Your task to perform on an android device: turn pop-ups off in chrome Image 0: 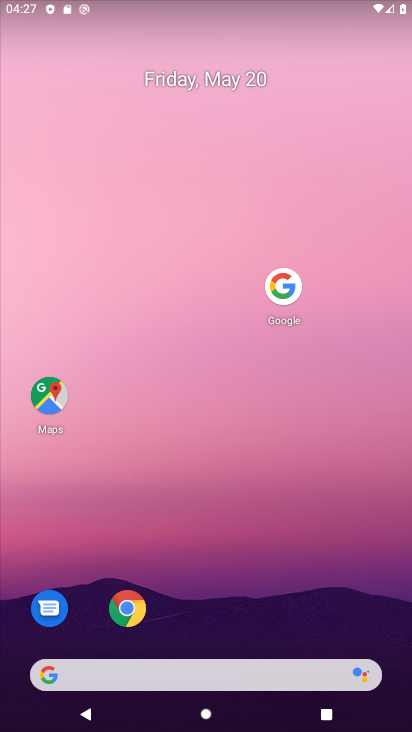
Step 0: click (123, 608)
Your task to perform on an android device: turn pop-ups off in chrome Image 1: 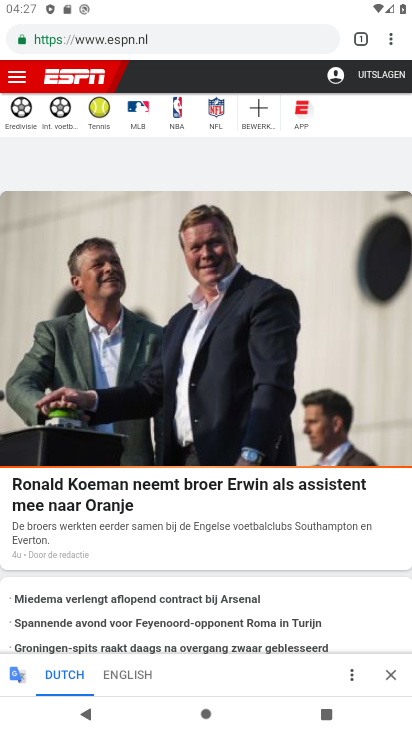
Step 1: click (384, 41)
Your task to perform on an android device: turn pop-ups off in chrome Image 2: 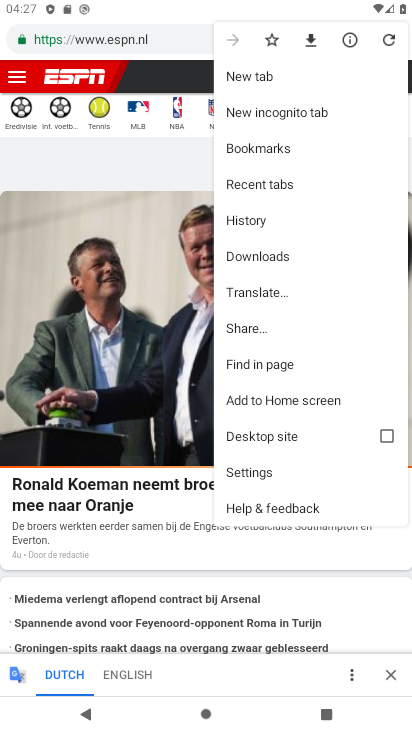
Step 2: drag from (295, 439) to (276, 271)
Your task to perform on an android device: turn pop-ups off in chrome Image 3: 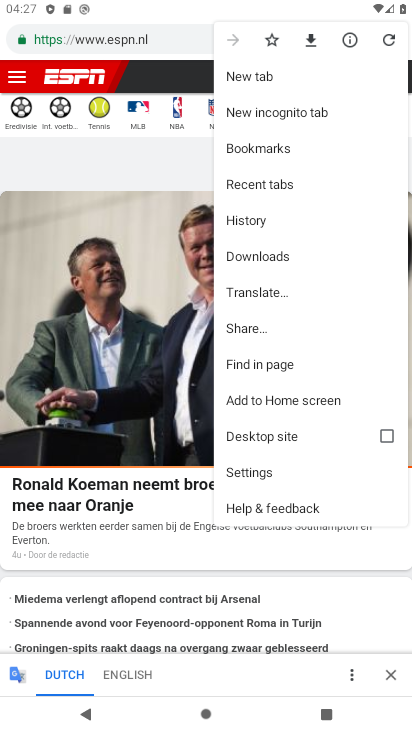
Step 3: click (260, 470)
Your task to perform on an android device: turn pop-ups off in chrome Image 4: 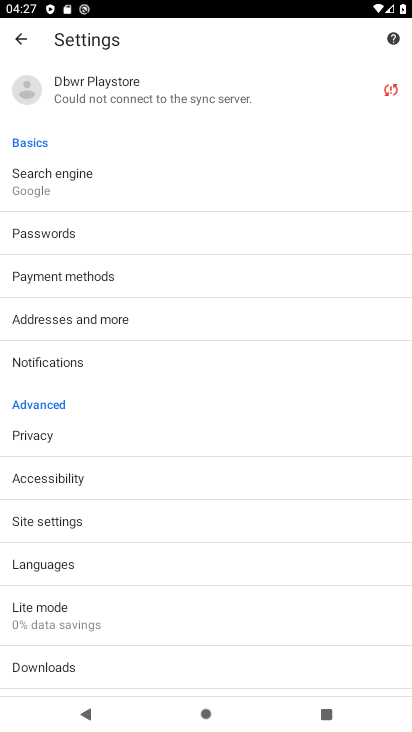
Step 4: click (71, 529)
Your task to perform on an android device: turn pop-ups off in chrome Image 5: 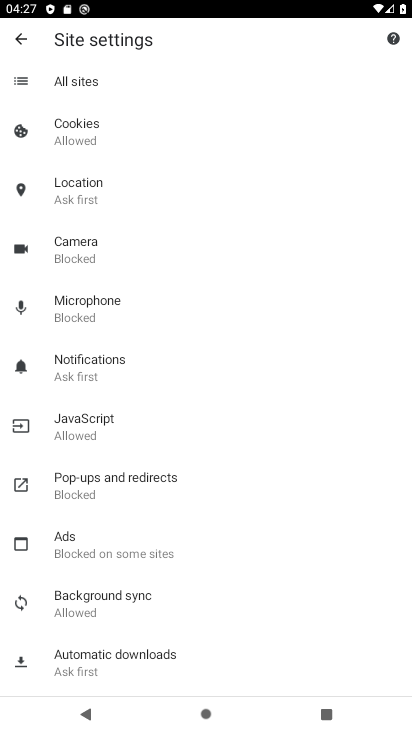
Step 5: click (99, 476)
Your task to perform on an android device: turn pop-ups off in chrome Image 6: 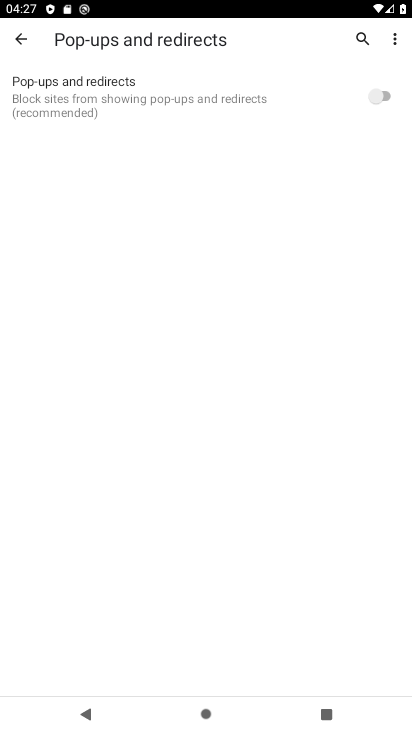
Step 6: task complete